Your task to perform on an android device: Go to Yahoo.com Image 0: 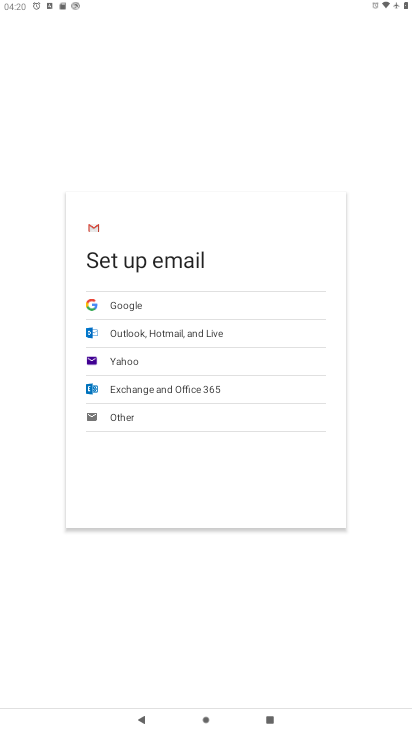
Step 0: press home button
Your task to perform on an android device: Go to Yahoo.com Image 1: 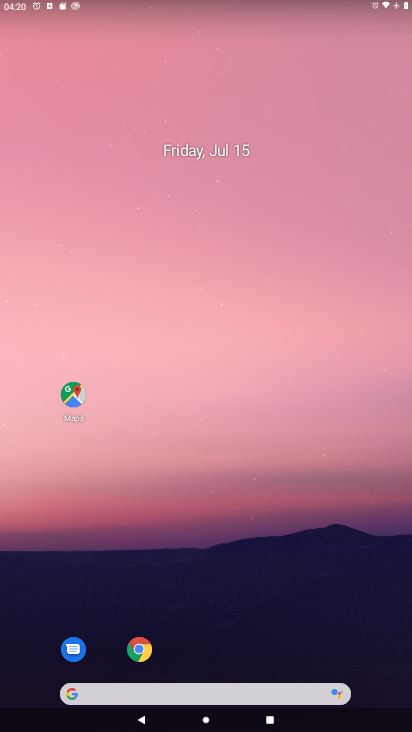
Step 1: click (140, 651)
Your task to perform on an android device: Go to Yahoo.com Image 2: 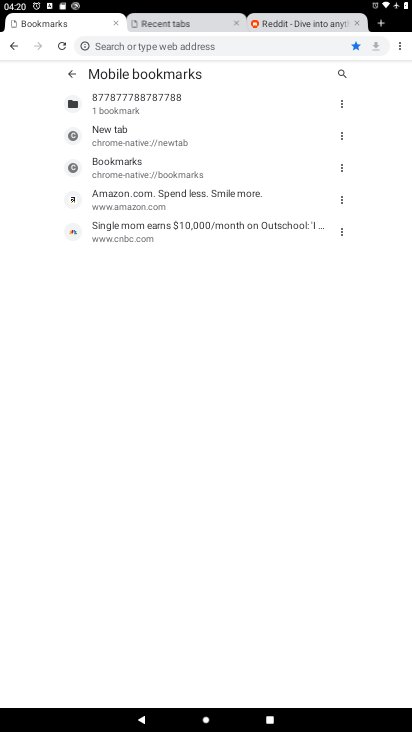
Step 2: click (191, 47)
Your task to perform on an android device: Go to Yahoo.com Image 3: 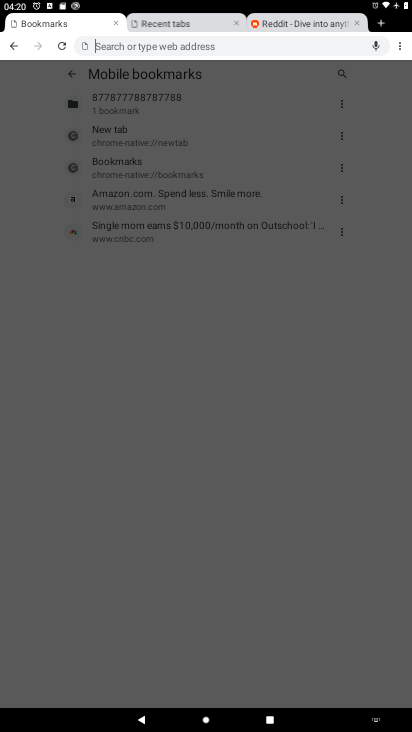
Step 3: type "yahoo.com"
Your task to perform on an android device: Go to Yahoo.com Image 4: 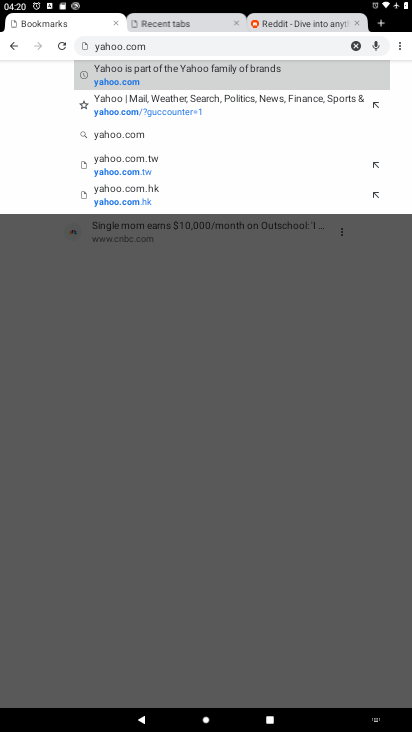
Step 4: click (128, 79)
Your task to perform on an android device: Go to Yahoo.com Image 5: 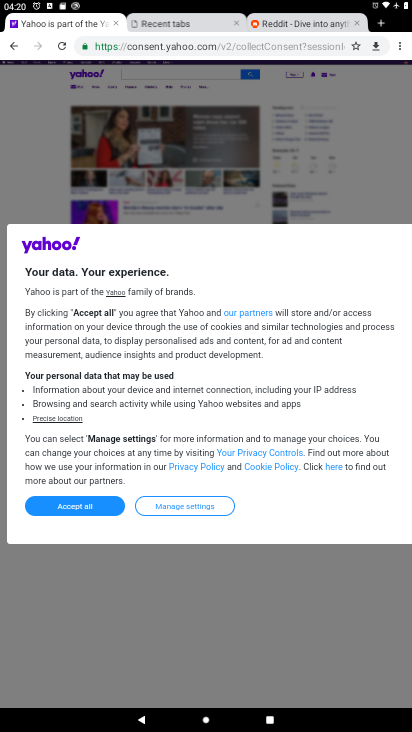
Step 5: click (75, 508)
Your task to perform on an android device: Go to Yahoo.com Image 6: 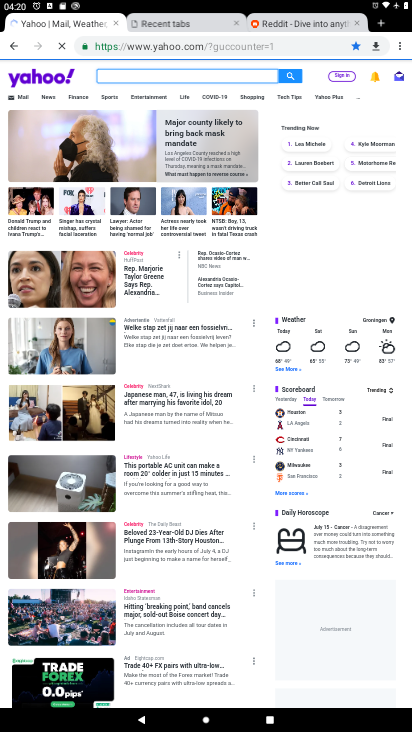
Step 6: task complete